Your task to perform on an android device: open sync settings in chrome Image 0: 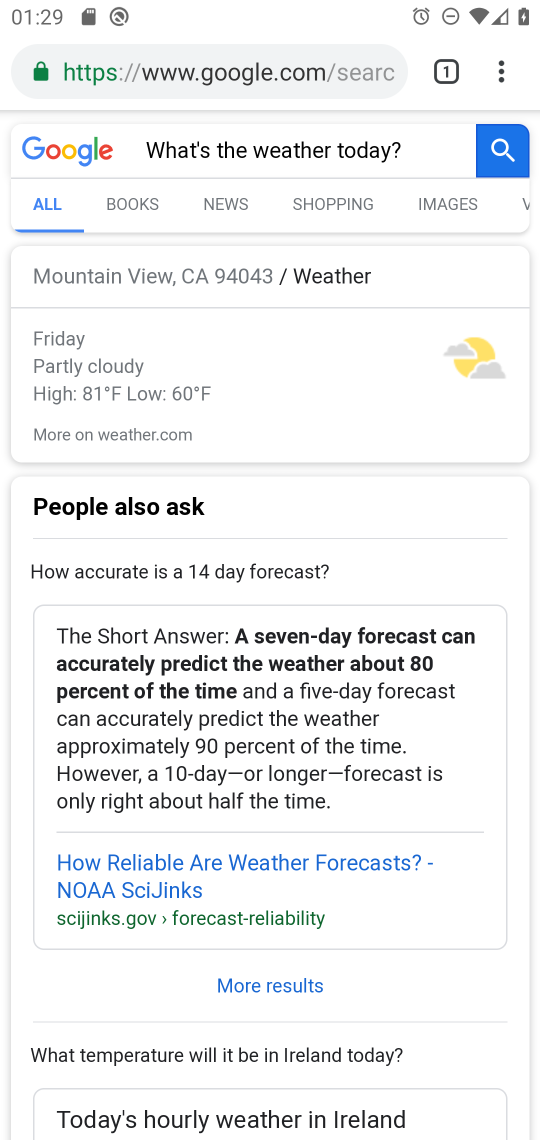
Step 0: press home button
Your task to perform on an android device: open sync settings in chrome Image 1: 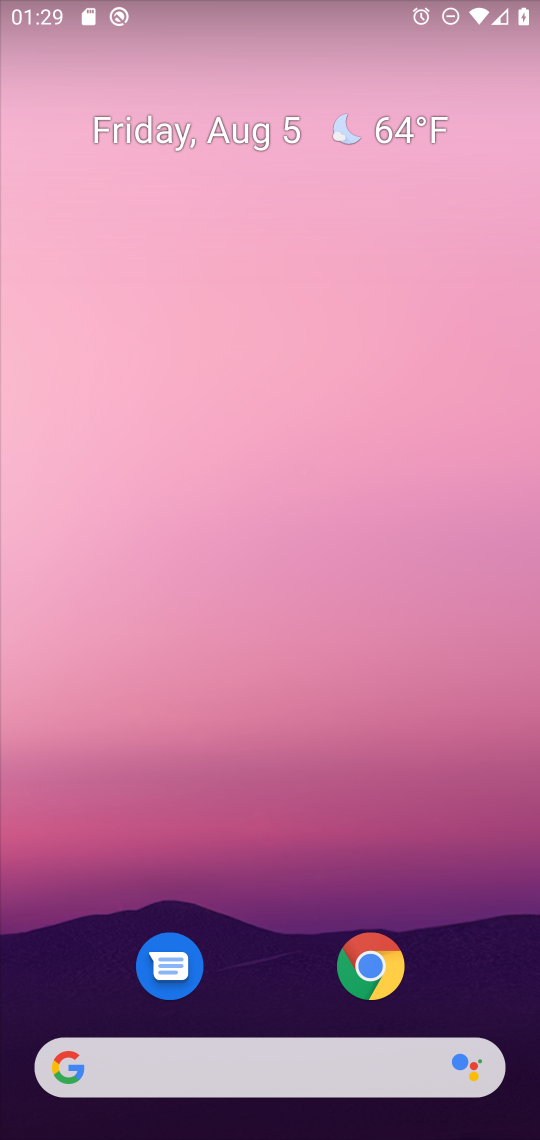
Step 1: click (366, 976)
Your task to perform on an android device: open sync settings in chrome Image 2: 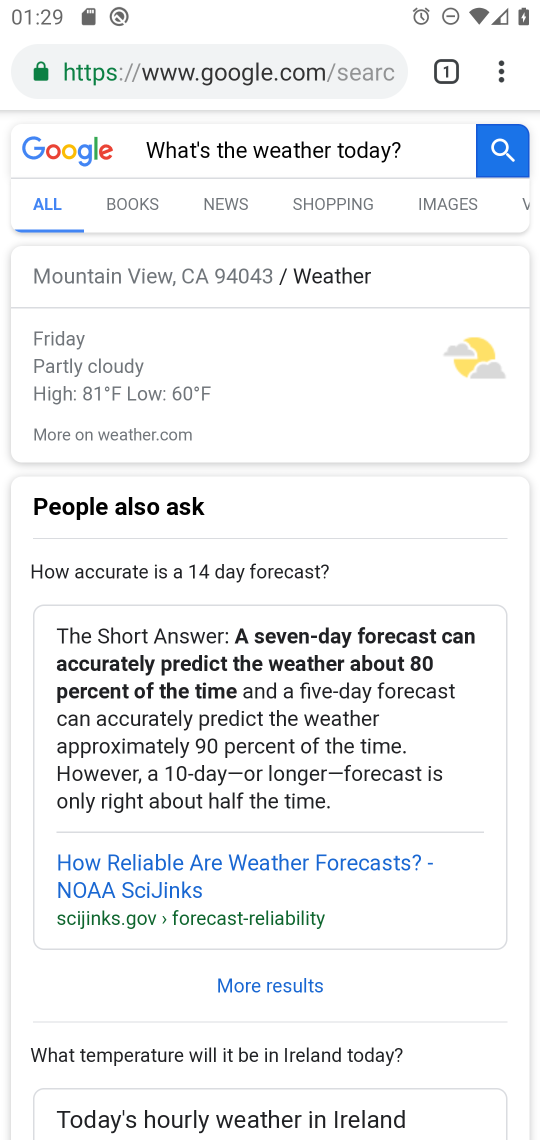
Step 2: click (499, 68)
Your task to perform on an android device: open sync settings in chrome Image 3: 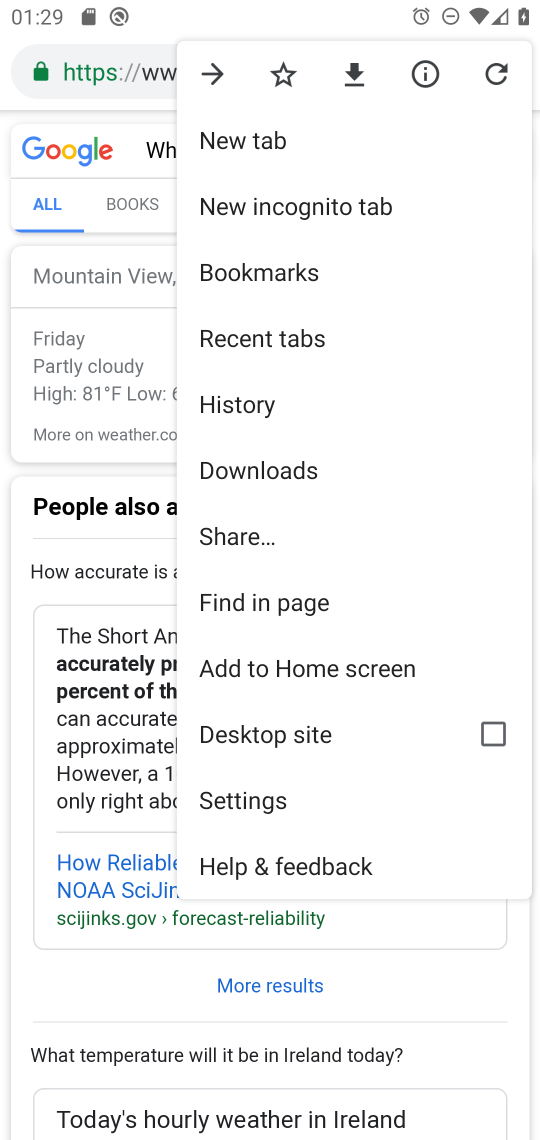
Step 3: click (290, 793)
Your task to perform on an android device: open sync settings in chrome Image 4: 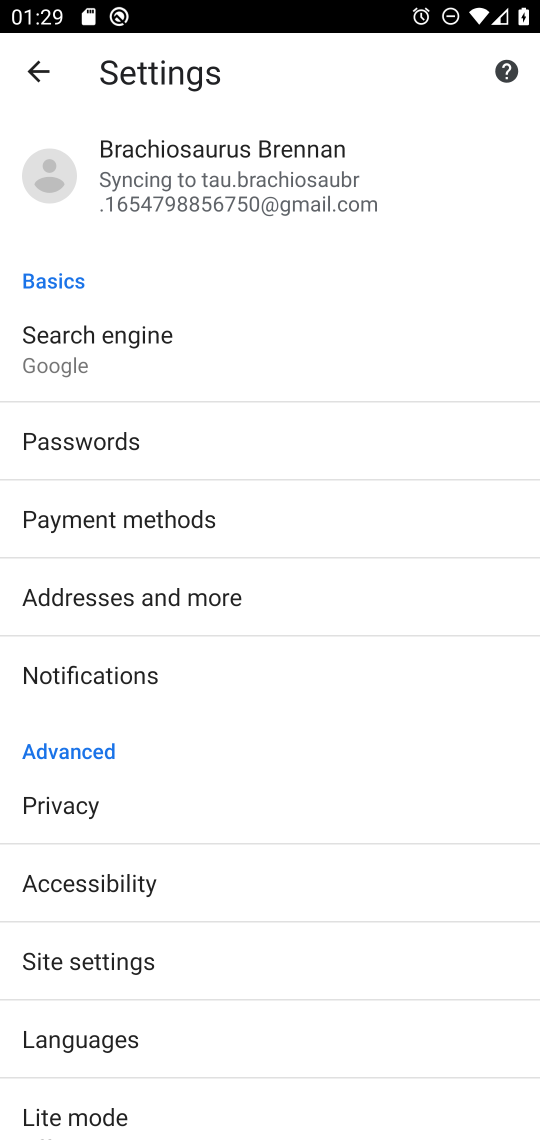
Step 4: click (316, 159)
Your task to perform on an android device: open sync settings in chrome Image 5: 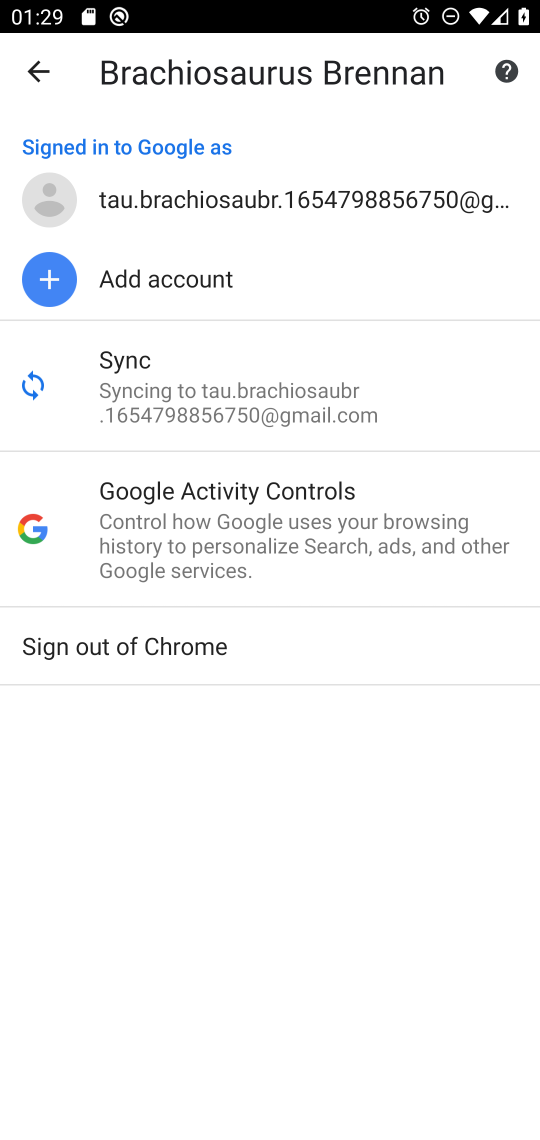
Step 5: click (230, 388)
Your task to perform on an android device: open sync settings in chrome Image 6: 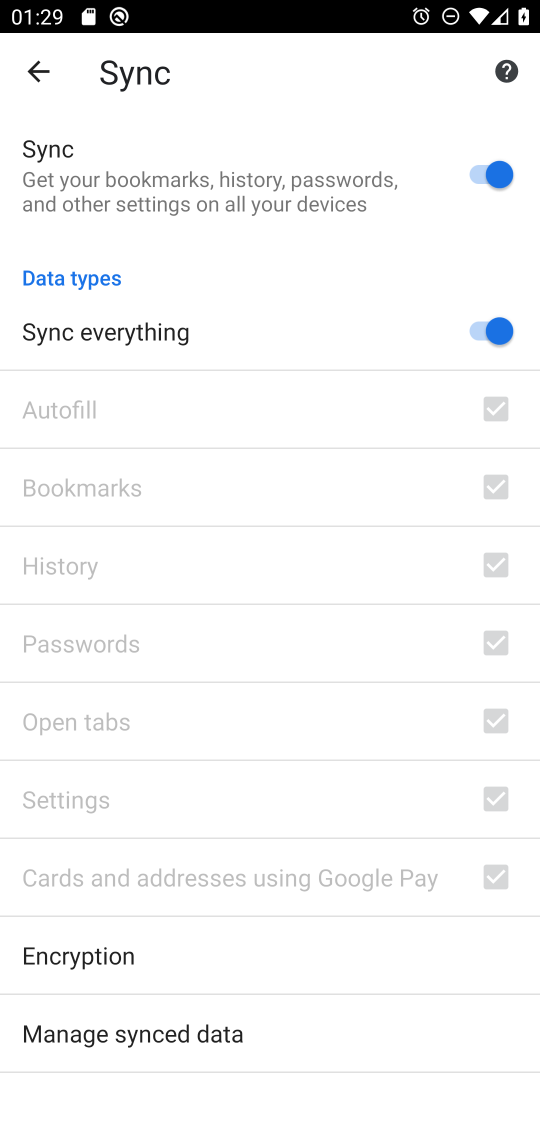
Step 6: task complete